Your task to perform on an android device: check the backup settings in the google photos Image 0: 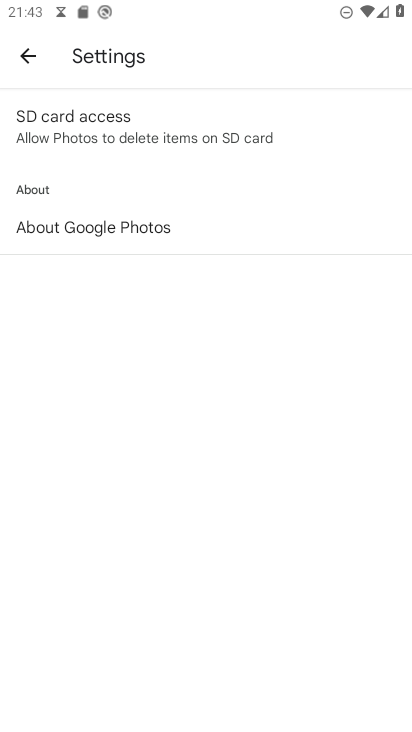
Step 0: press home button
Your task to perform on an android device: check the backup settings in the google photos Image 1: 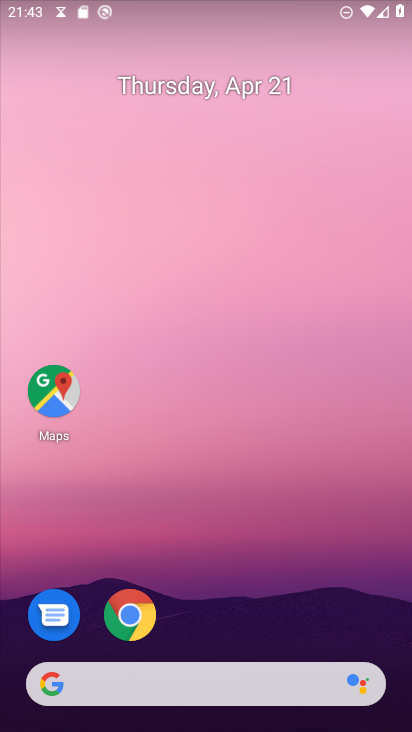
Step 1: drag from (179, 601) to (212, 100)
Your task to perform on an android device: check the backup settings in the google photos Image 2: 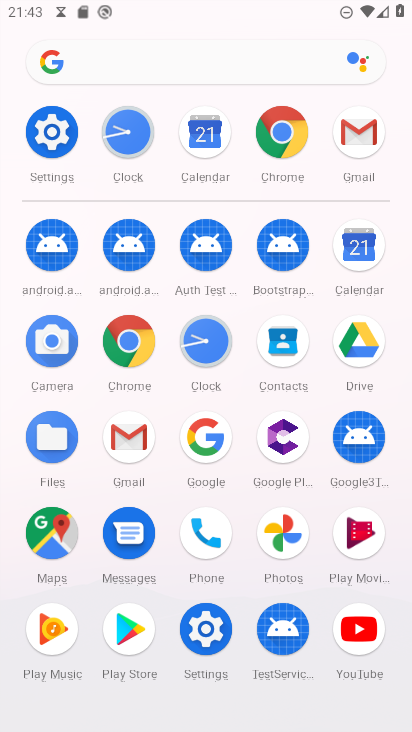
Step 2: click (286, 531)
Your task to perform on an android device: check the backup settings in the google photos Image 3: 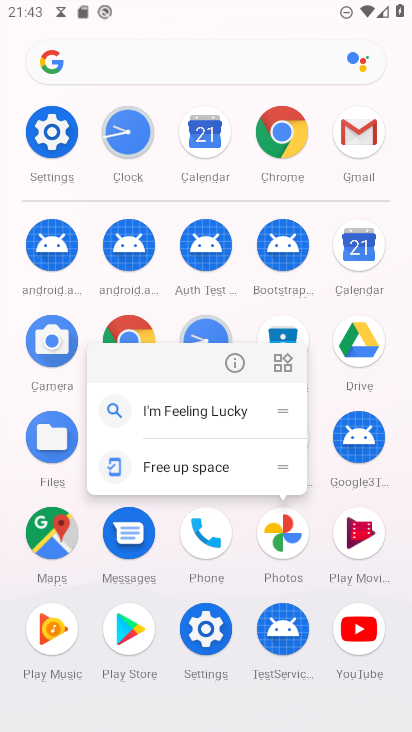
Step 3: click (234, 353)
Your task to perform on an android device: check the backup settings in the google photos Image 4: 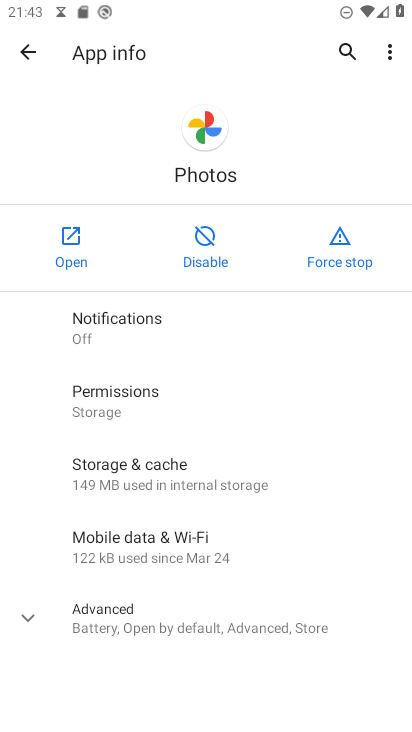
Step 4: click (83, 239)
Your task to perform on an android device: check the backup settings in the google photos Image 5: 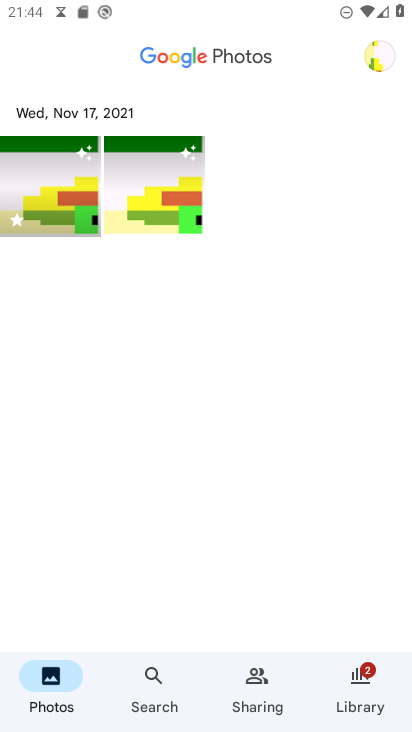
Step 5: click (379, 50)
Your task to perform on an android device: check the backup settings in the google photos Image 6: 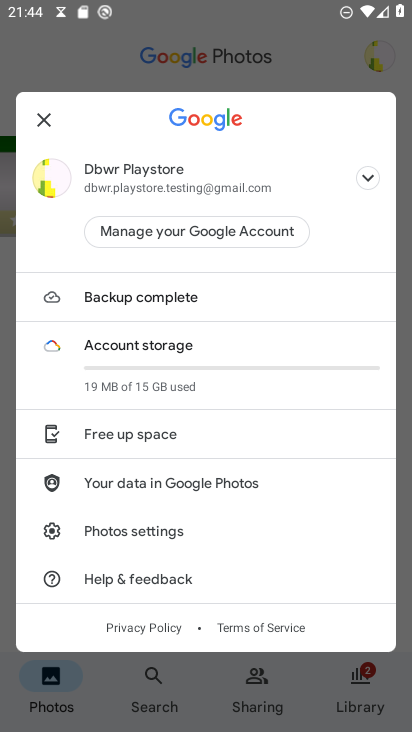
Step 6: click (159, 521)
Your task to perform on an android device: check the backup settings in the google photos Image 7: 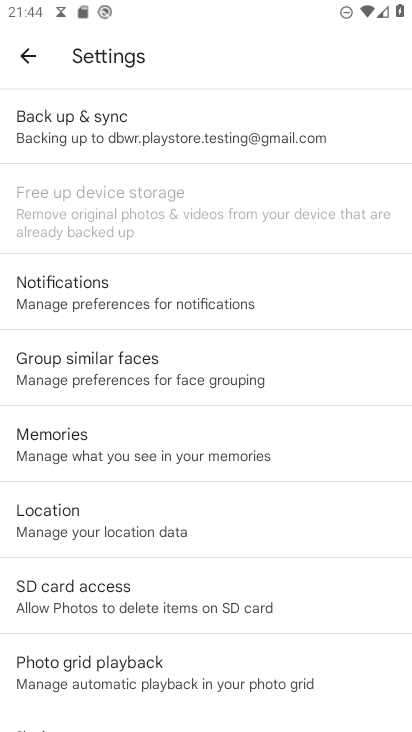
Step 7: click (128, 120)
Your task to perform on an android device: check the backup settings in the google photos Image 8: 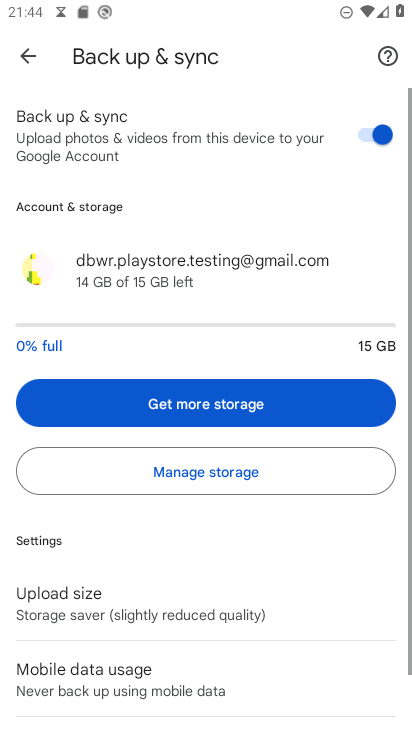
Step 8: task complete